Your task to perform on an android device: Open accessibility settings Image 0: 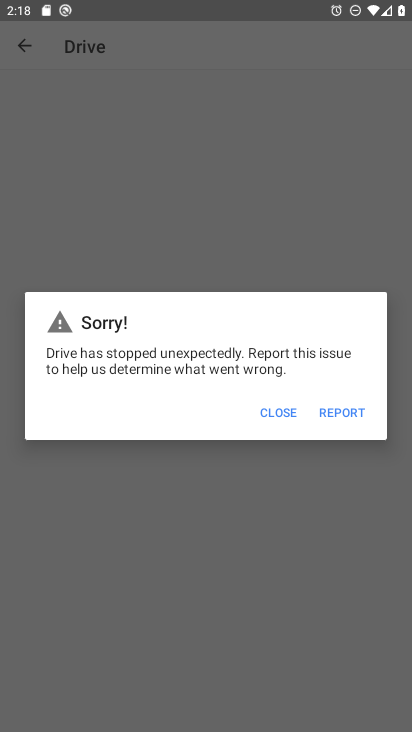
Step 0: press home button
Your task to perform on an android device: Open accessibility settings Image 1: 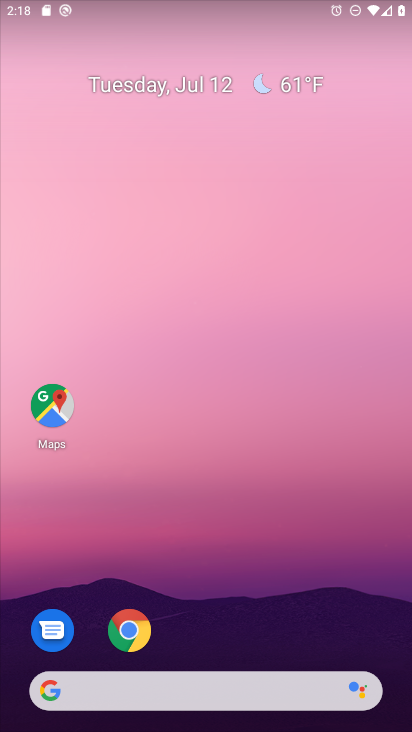
Step 1: drag from (212, 619) to (205, 230)
Your task to perform on an android device: Open accessibility settings Image 2: 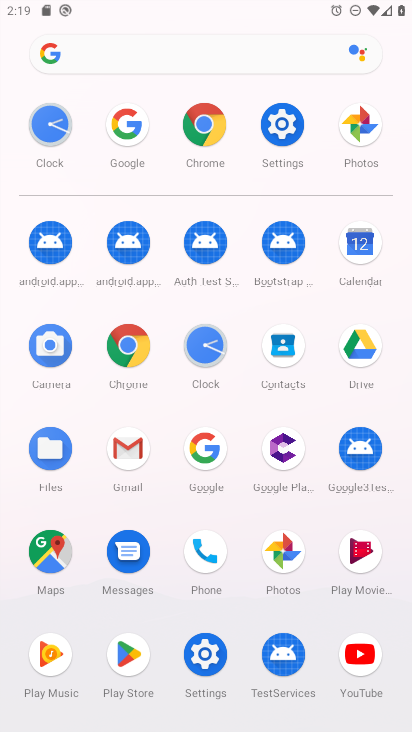
Step 2: click (281, 130)
Your task to perform on an android device: Open accessibility settings Image 3: 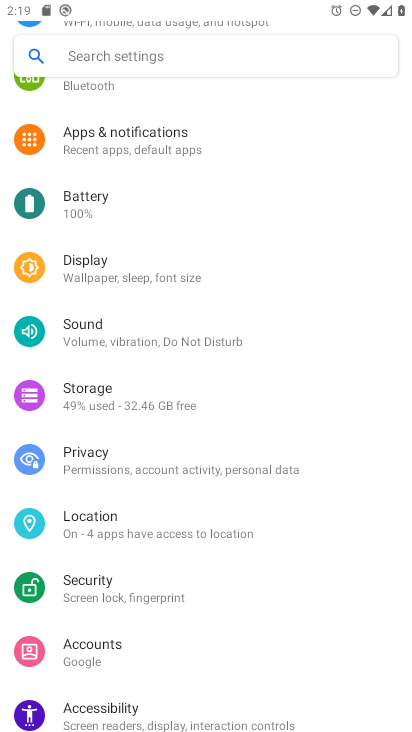
Step 3: drag from (147, 519) to (170, 298)
Your task to perform on an android device: Open accessibility settings Image 4: 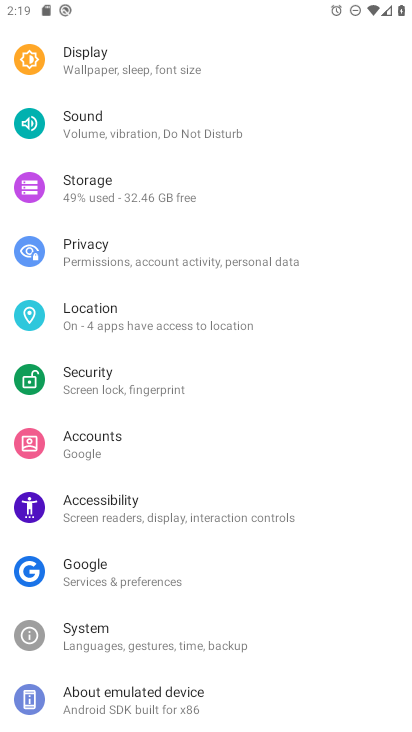
Step 4: click (122, 506)
Your task to perform on an android device: Open accessibility settings Image 5: 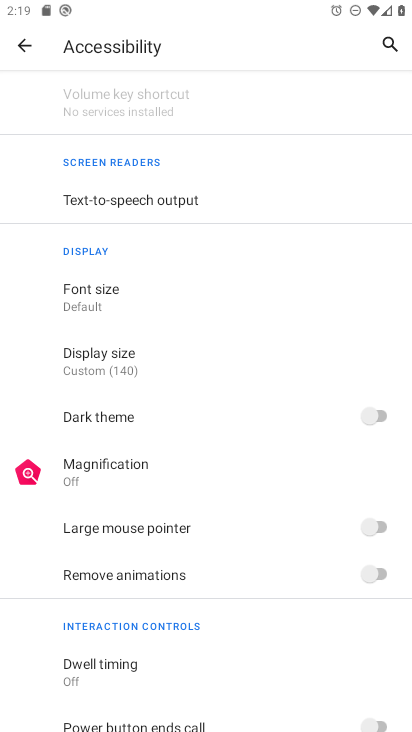
Step 5: task complete